Your task to perform on an android device: Is it going to rain tomorrow? Image 0: 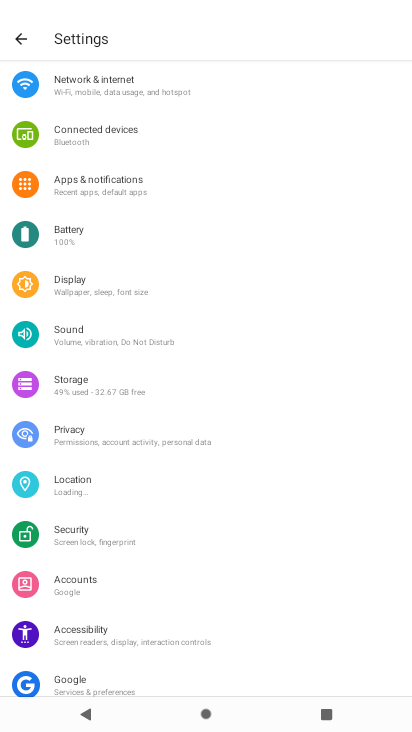
Step 0: press home button
Your task to perform on an android device: Is it going to rain tomorrow? Image 1: 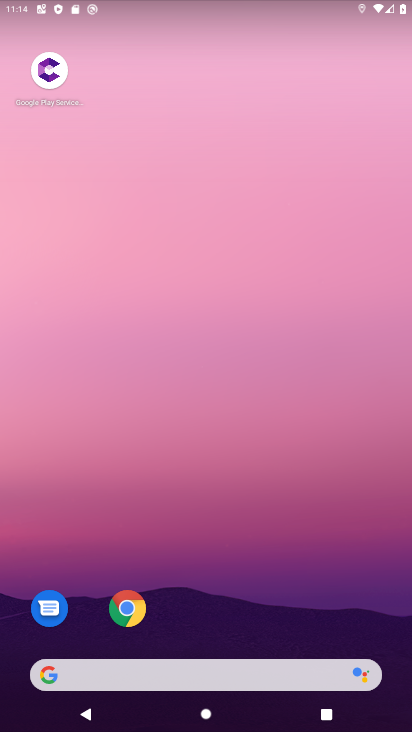
Step 1: drag from (272, 644) to (160, 22)
Your task to perform on an android device: Is it going to rain tomorrow? Image 2: 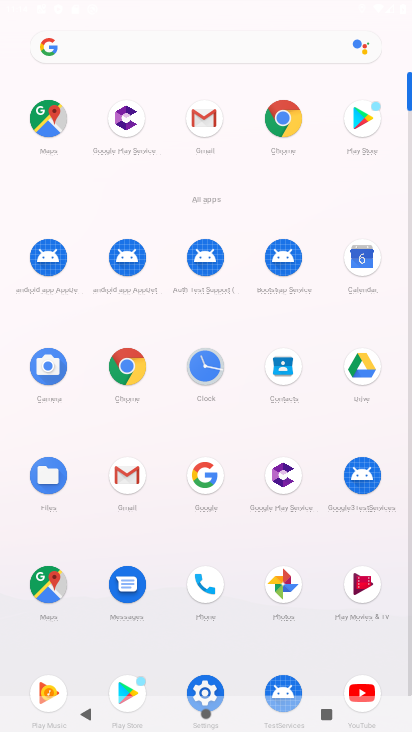
Step 2: click (123, 347)
Your task to perform on an android device: Is it going to rain tomorrow? Image 3: 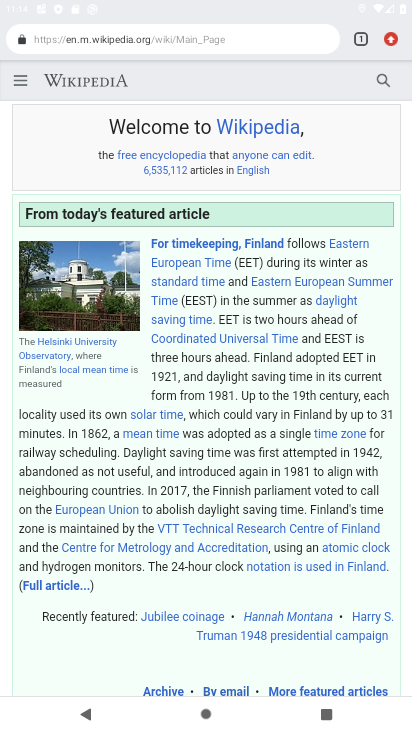
Step 3: click (172, 33)
Your task to perform on an android device: Is it going to rain tomorrow? Image 4: 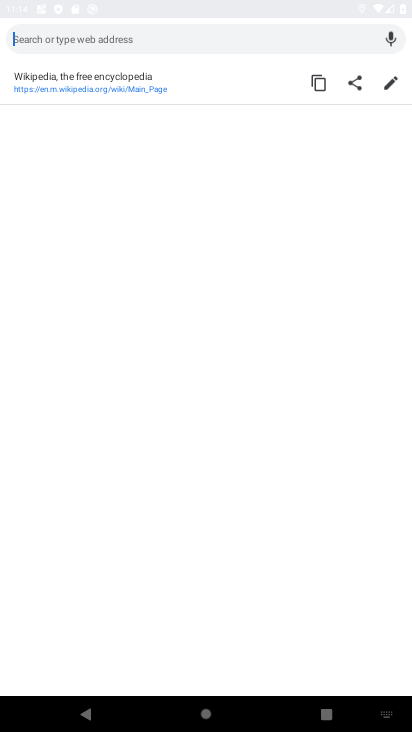
Step 4: type "is it going to rain tomorrow"
Your task to perform on an android device: Is it going to rain tomorrow? Image 5: 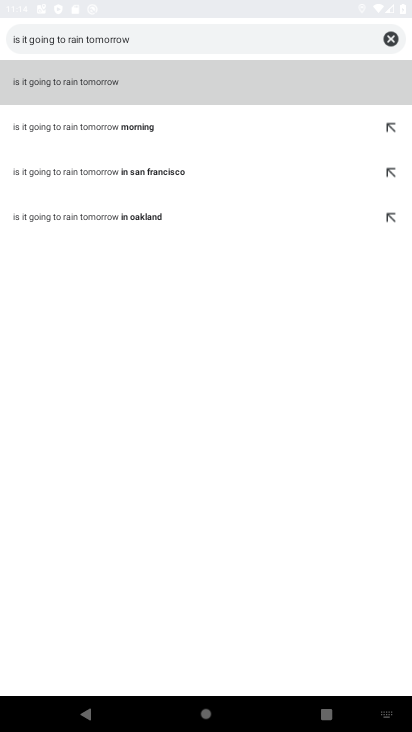
Step 5: click (45, 93)
Your task to perform on an android device: Is it going to rain tomorrow? Image 6: 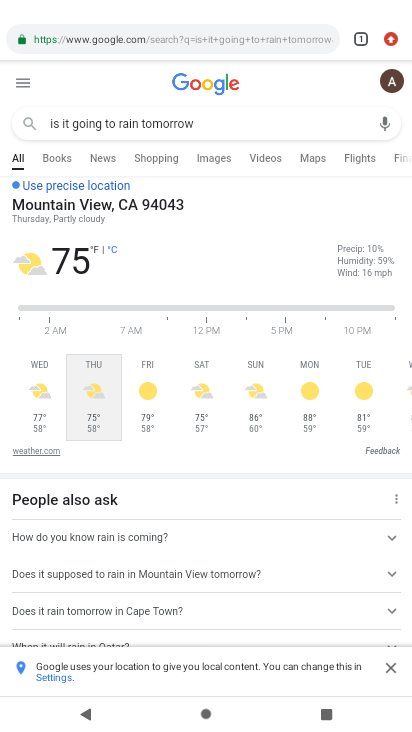
Step 6: task complete